Your task to perform on an android device: Go to network settings Image 0: 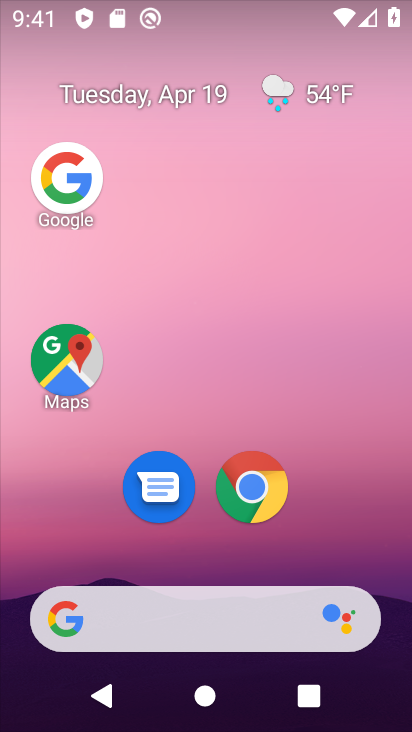
Step 0: drag from (206, 578) to (284, 121)
Your task to perform on an android device: Go to network settings Image 1: 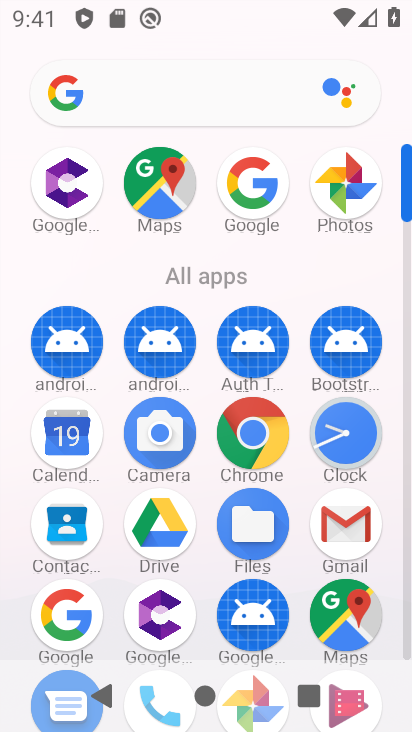
Step 1: drag from (215, 552) to (339, 97)
Your task to perform on an android device: Go to network settings Image 2: 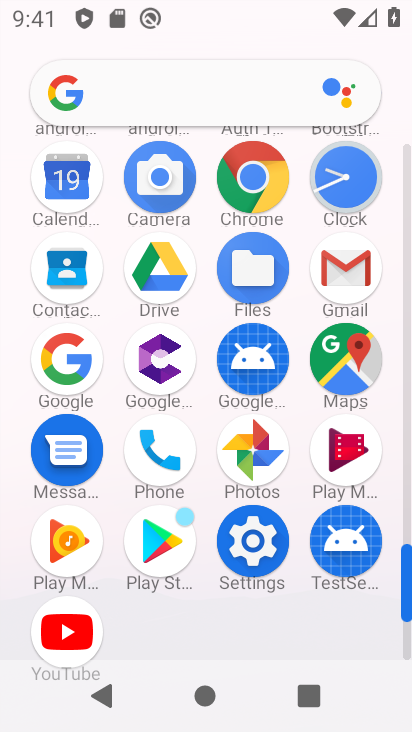
Step 2: drag from (254, 540) to (193, 211)
Your task to perform on an android device: Go to network settings Image 3: 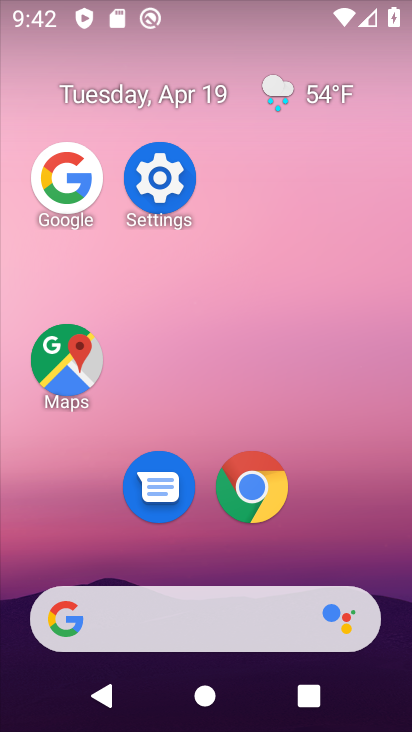
Step 3: click (152, 163)
Your task to perform on an android device: Go to network settings Image 4: 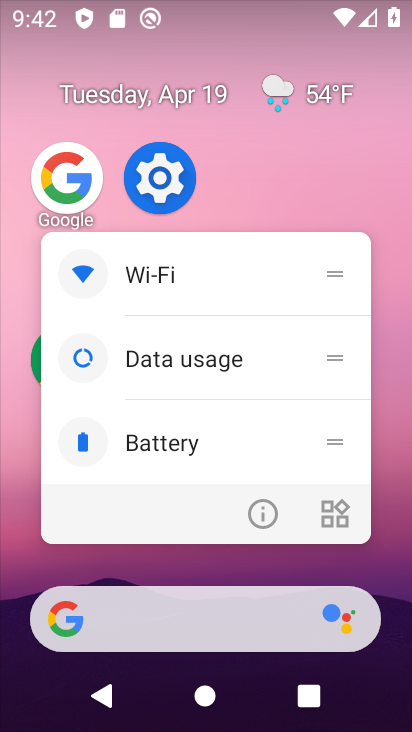
Step 4: click (153, 176)
Your task to perform on an android device: Go to network settings Image 5: 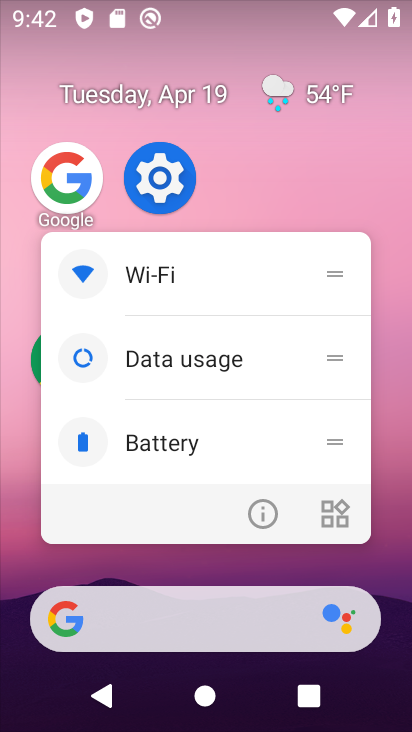
Step 5: click (153, 176)
Your task to perform on an android device: Go to network settings Image 6: 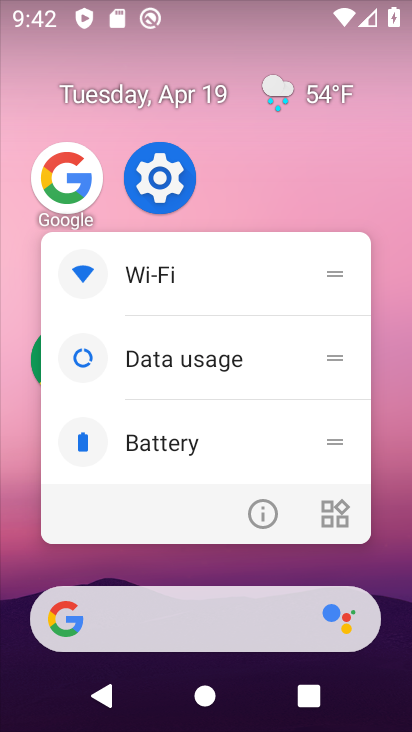
Step 6: click (153, 176)
Your task to perform on an android device: Go to network settings Image 7: 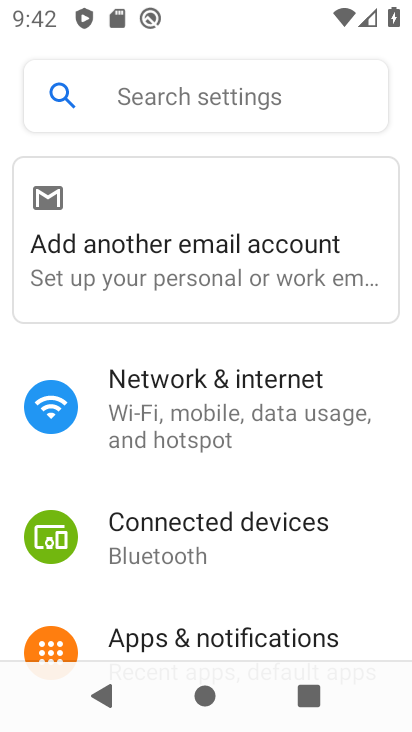
Step 7: click (204, 402)
Your task to perform on an android device: Go to network settings Image 8: 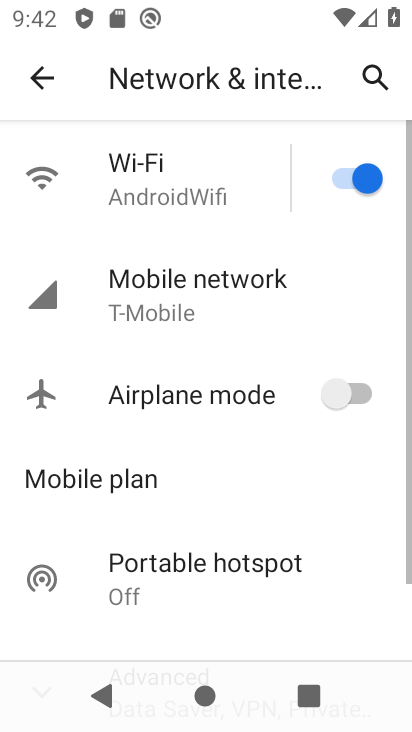
Step 8: task complete